Your task to perform on an android device: Search for pizza restaurants on Maps Image 0: 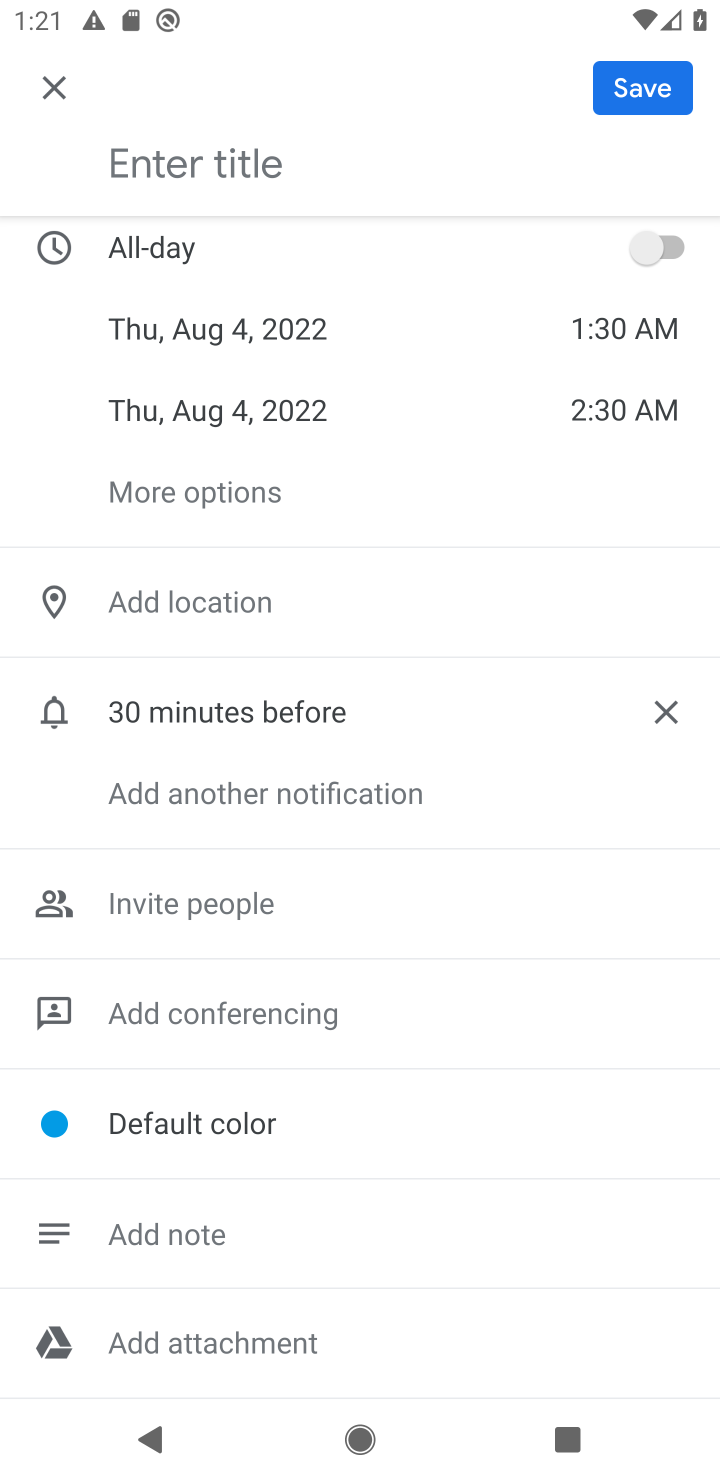
Step 0: press home button
Your task to perform on an android device: Search for pizza restaurants on Maps Image 1: 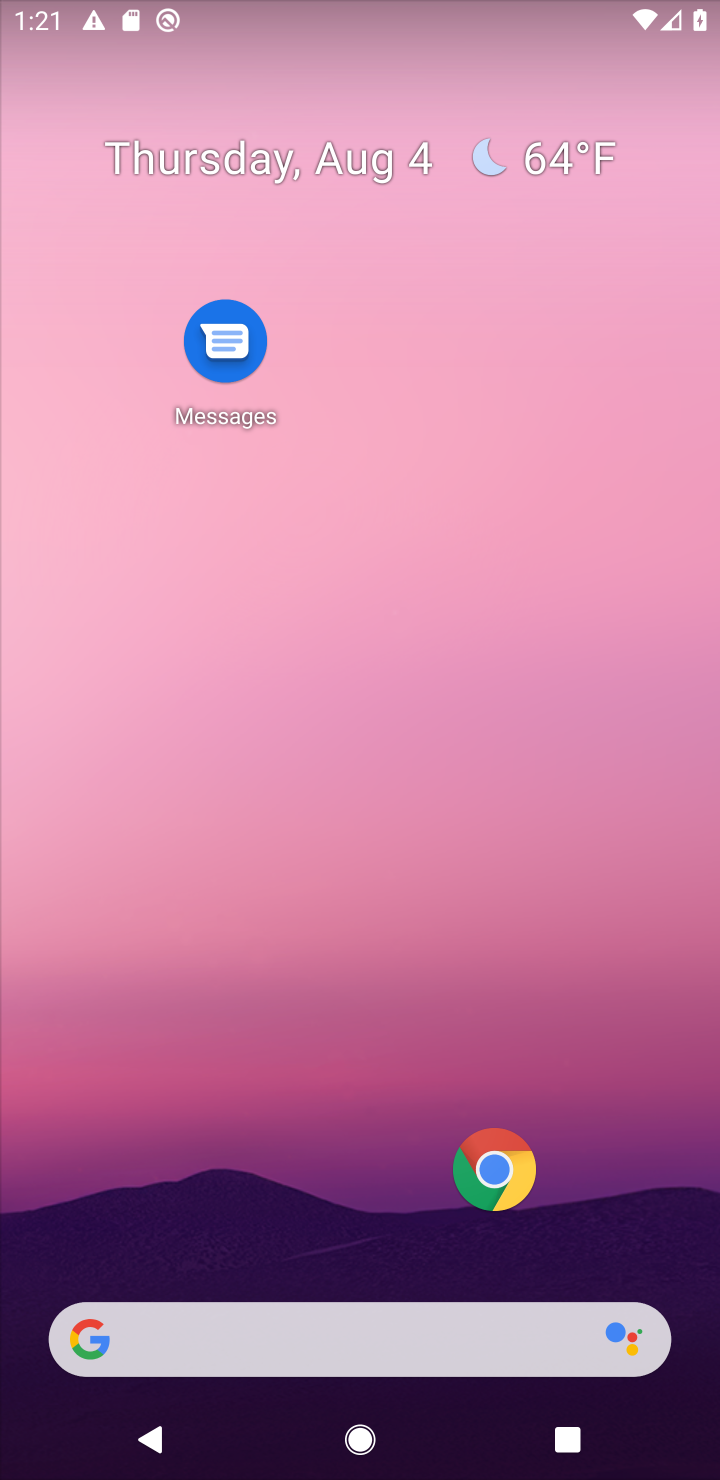
Step 1: drag from (349, 1170) to (30, 630)
Your task to perform on an android device: Search for pizza restaurants on Maps Image 2: 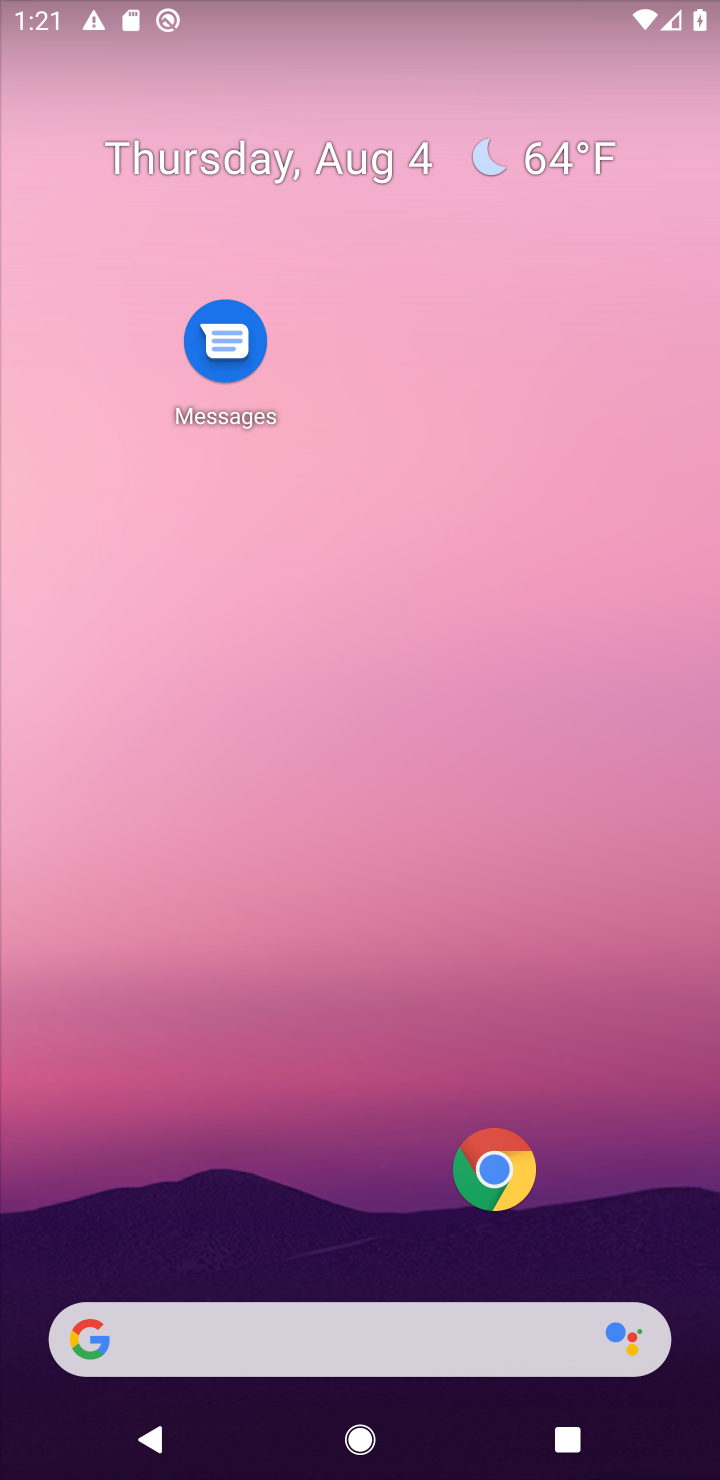
Step 2: drag from (250, 1101) to (46, 43)
Your task to perform on an android device: Search for pizza restaurants on Maps Image 3: 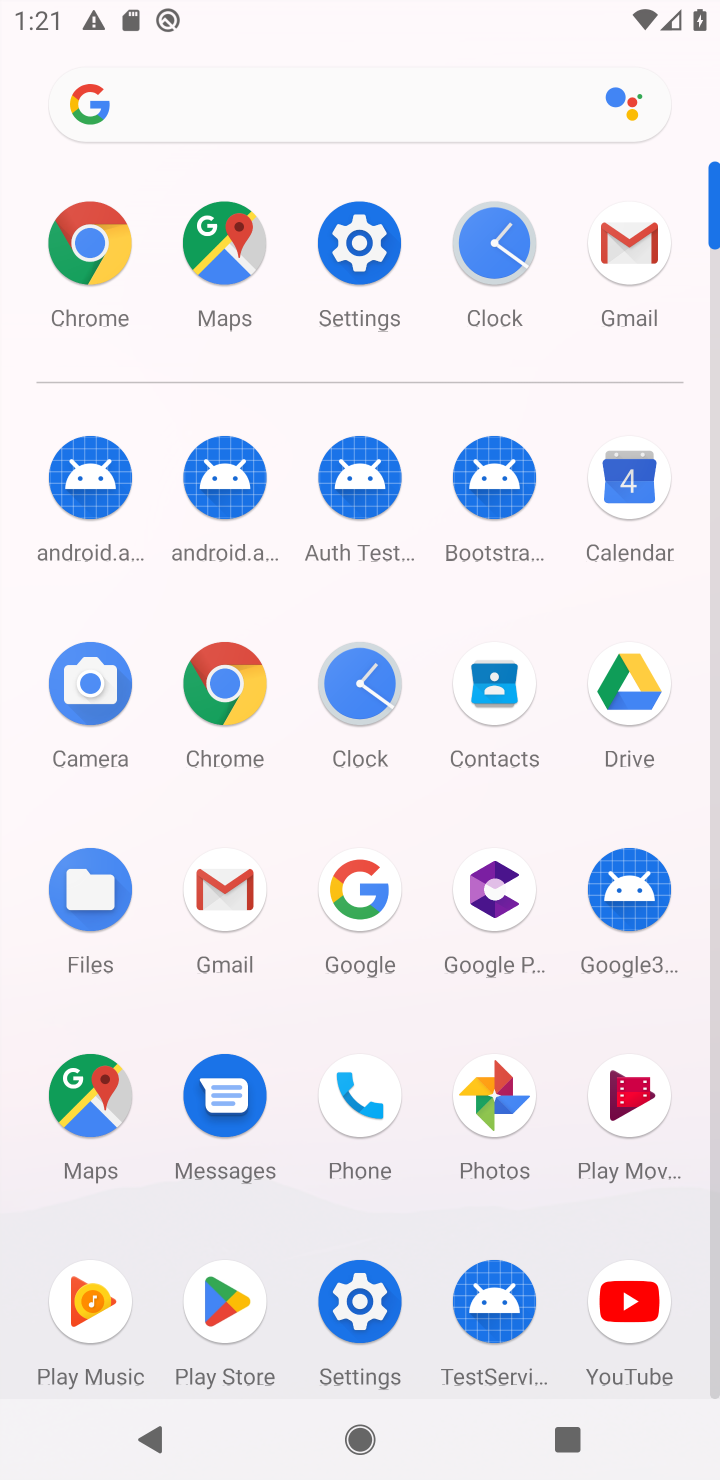
Step 3: click (93, 1117)
Your task to perform on an android device: Search for pizza restaurants on Maps Image 4: 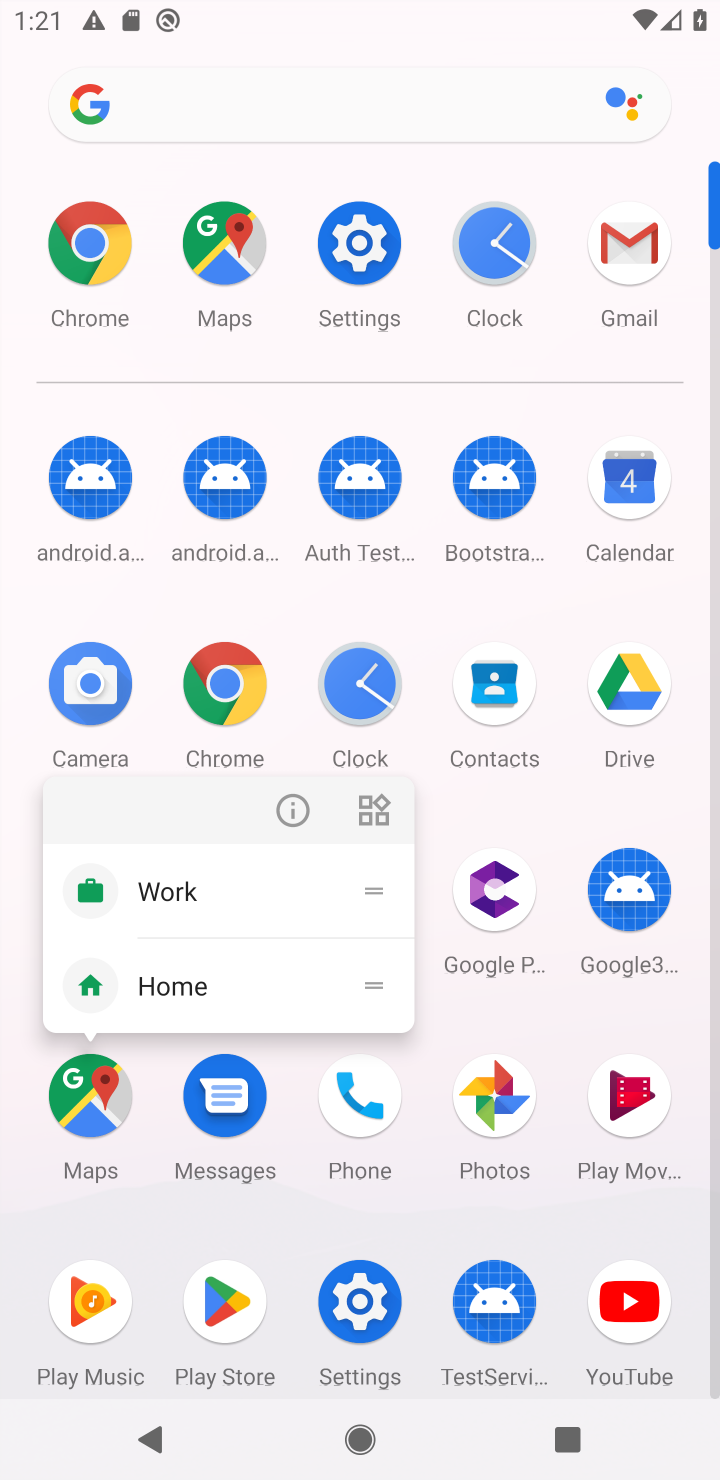
Step 4: click (93, 1117)
Your task to perform on an android device: Search for pizza restaurants on Maps Image 5: 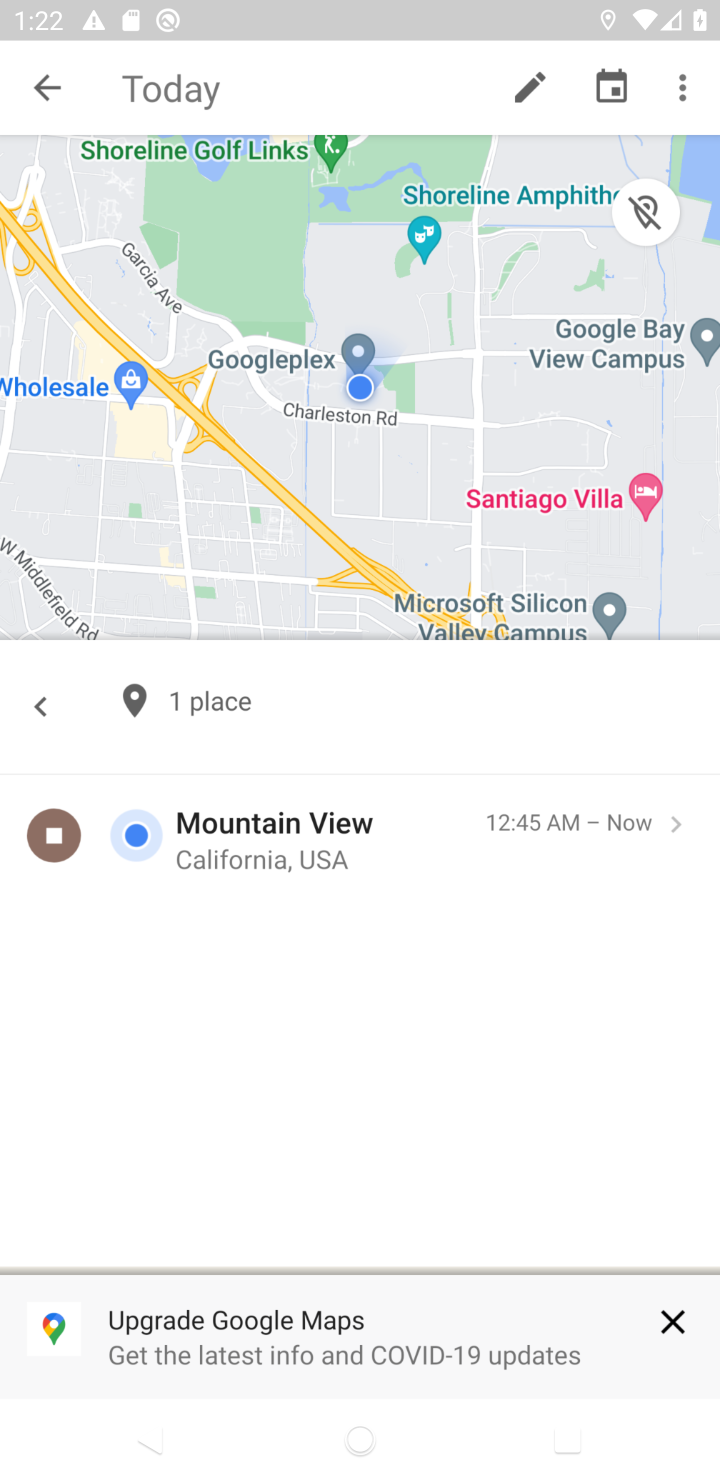
Step 5: click (43, 76)
Your task to perform on an android device: Search for pizza restaurants on Maps Image 6: 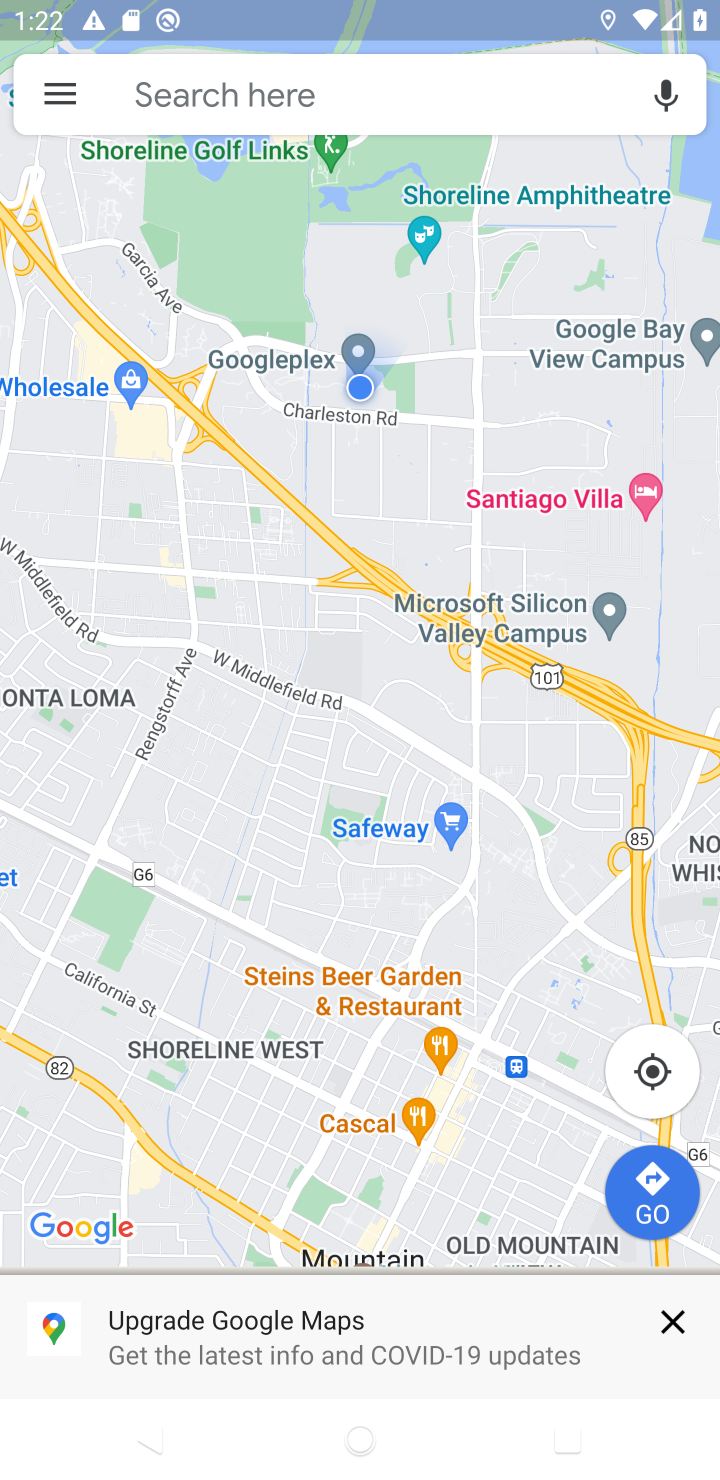
Step 6: click (205, 90)
Your task to perform on an android device: Search for pizza restaurants on Maps Image 7: 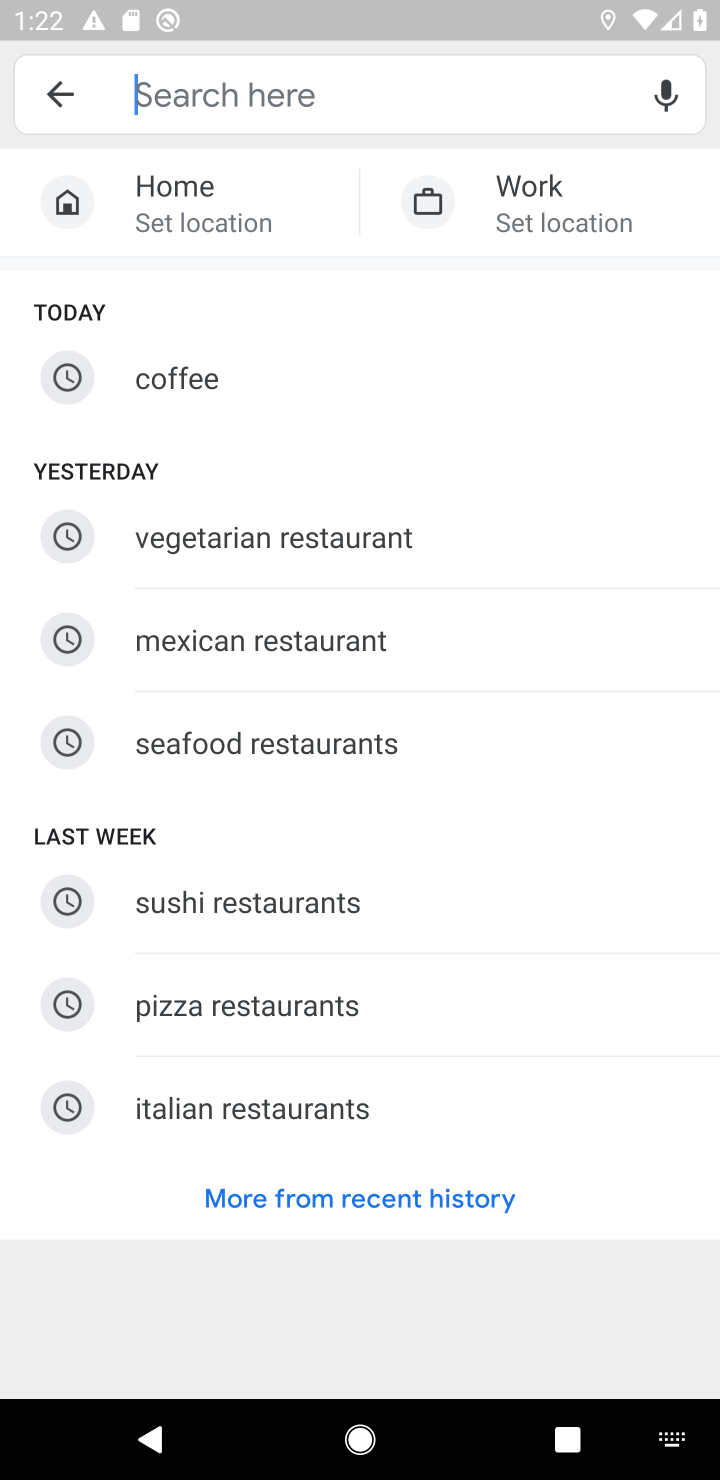
Step 7: type "pizza restaurants"
Your task to perform on an android device: Search for pizza restaurants on Maps Image 8: 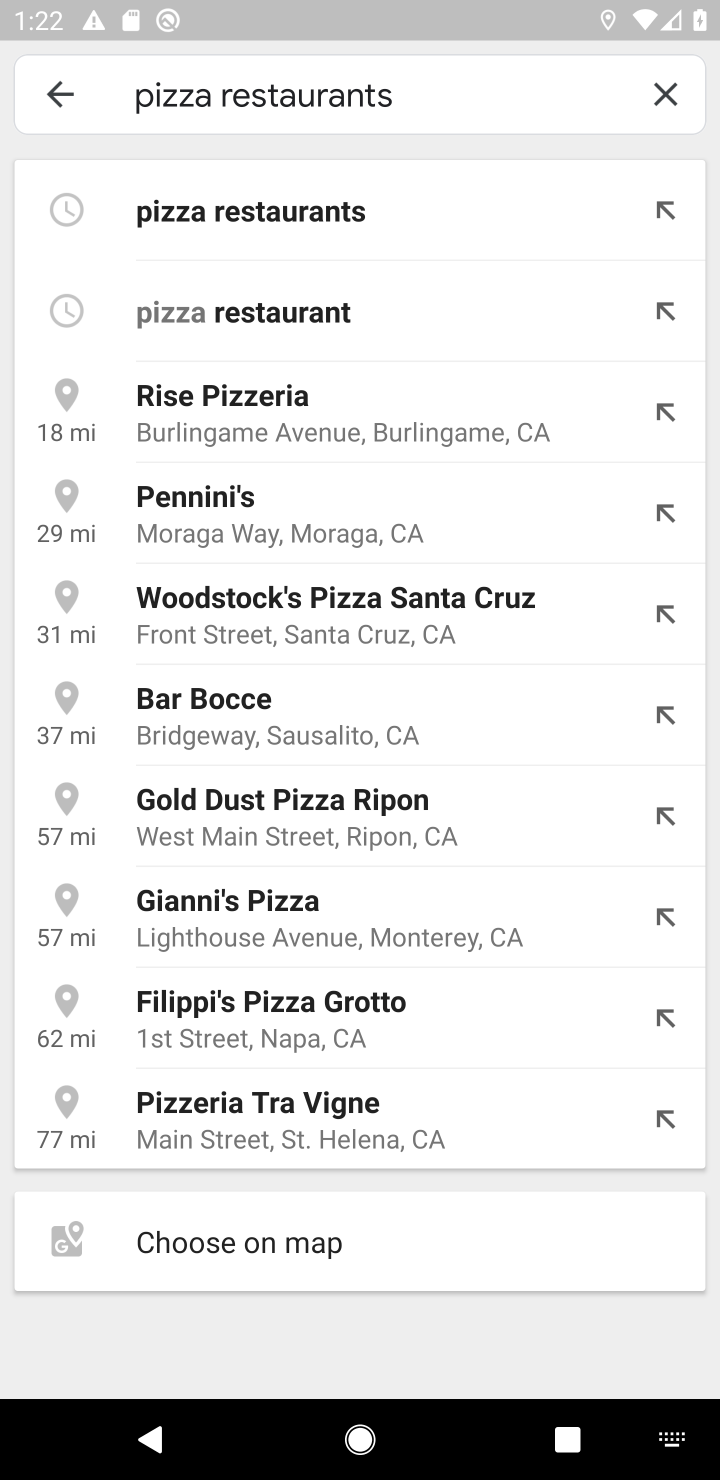
Step 8: click (284, 226)
Your task to perform on an android device: Search for pizza restaurants on Maps Image 9: 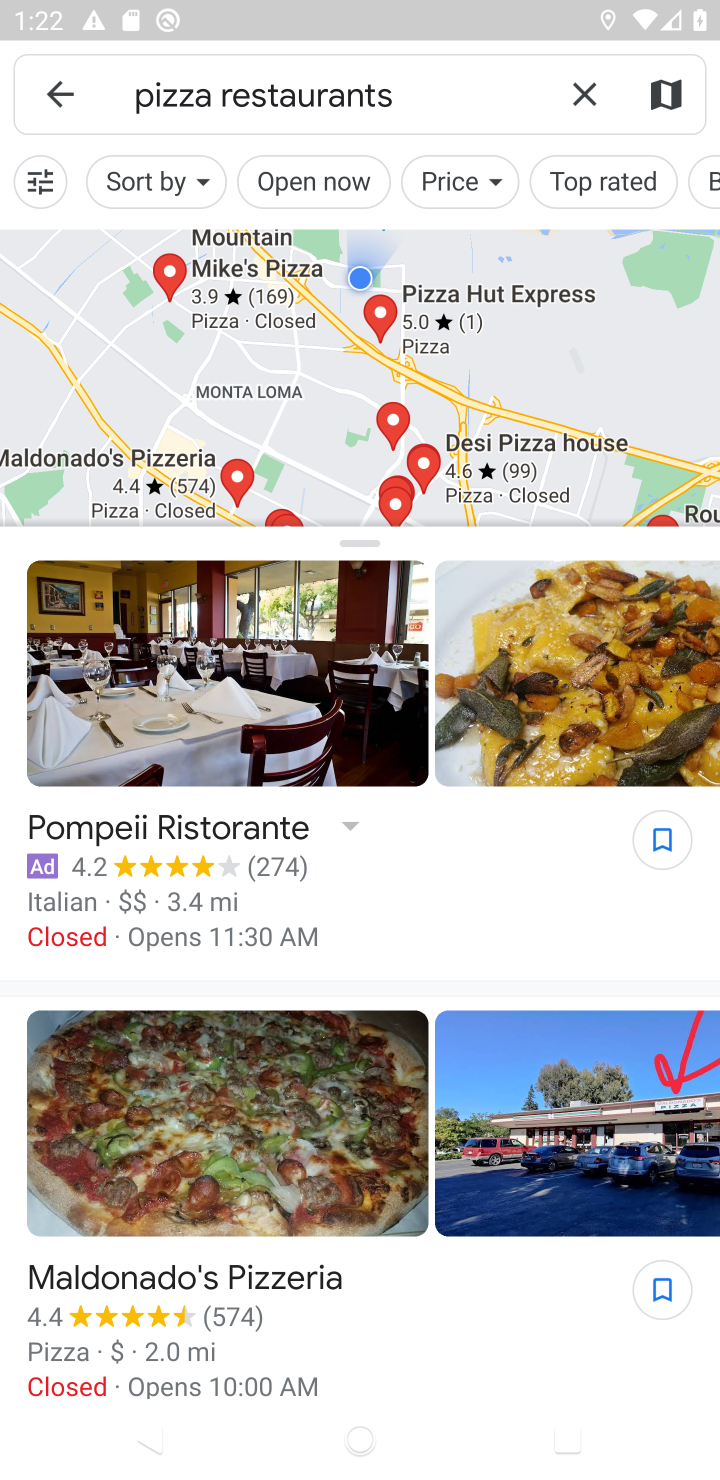
Step 9: task complete